Your task to perform on an android device: turn off location history Image 0: 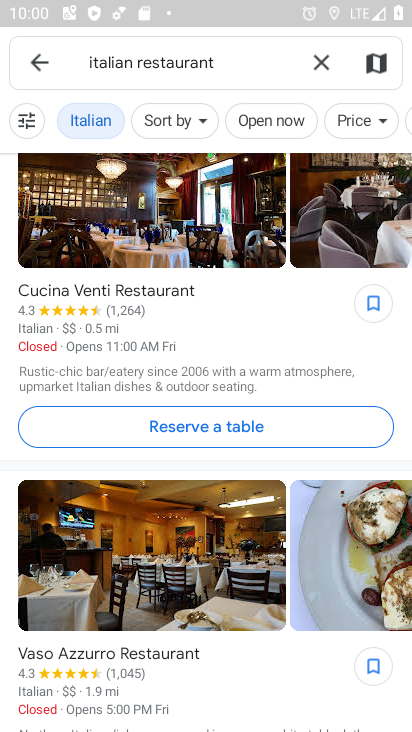
Step 0: press home button
Your task to perform on an android device: turn off location history Image 1: 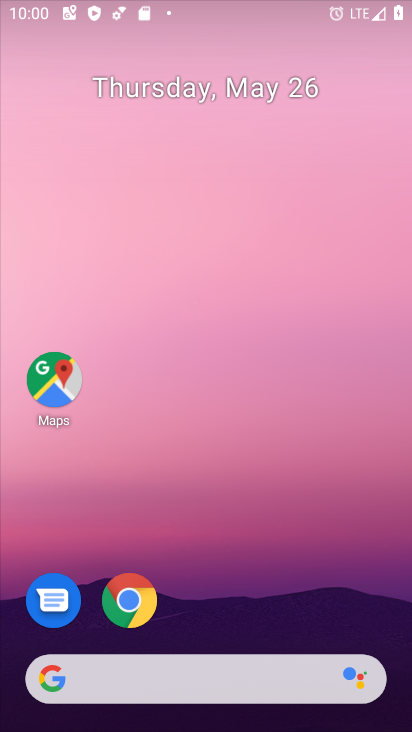
Step 1: drag from (292, 580) to (246, 132)
Your task to perform on an android device: turn off location history Image 2: 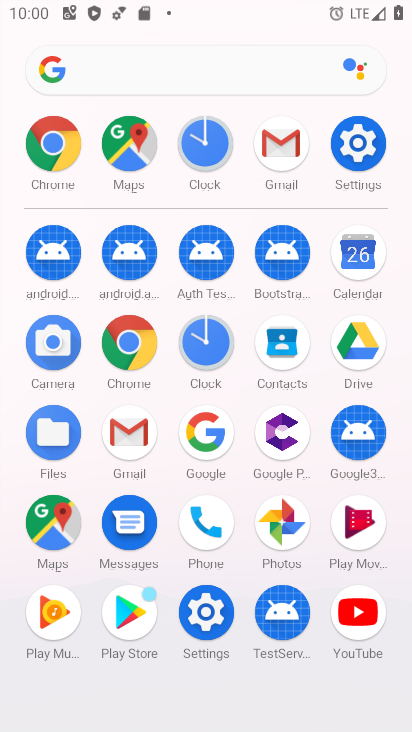
Step 2: click (361, 139)
Your task to perform on an android device: turn off location history Image 3: 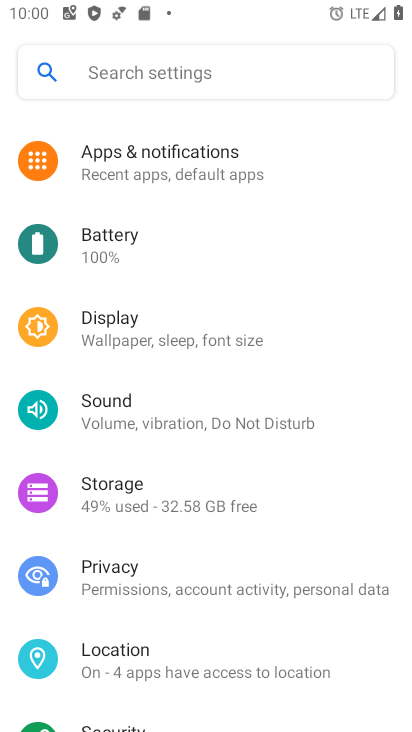
Step 3: click (109, 672)
Your task to perform on an android device: turn off location history Image 4: 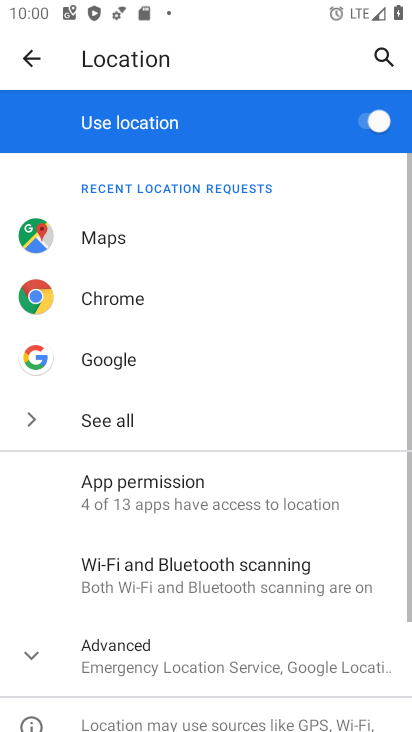
Step 4: click (136, 670)
Your task to perform on an android device: turn off location history Image 5: 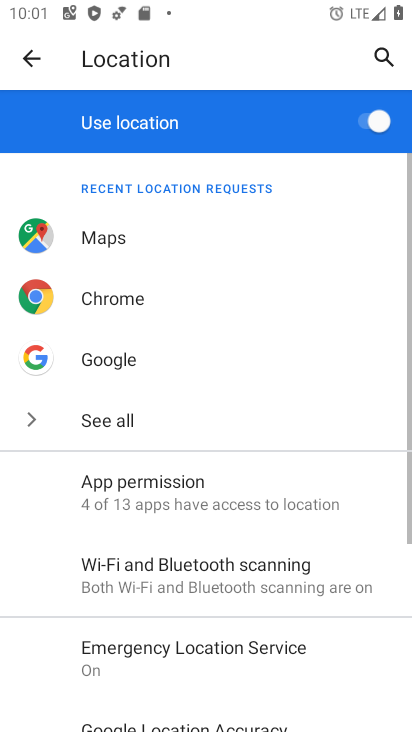
Step 5: drag from (143, 646) to (253, 182)
Your task to perform on an android device: turn off location history Image 6: 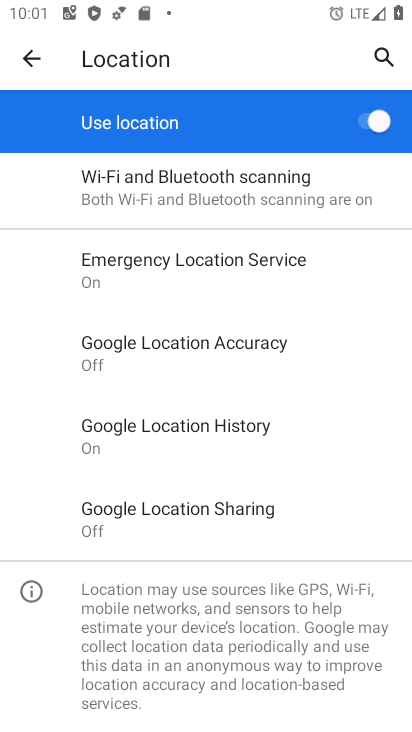
Step 6: click (201, 433)
Your task to perform on an android device: turn off location history Image 7: 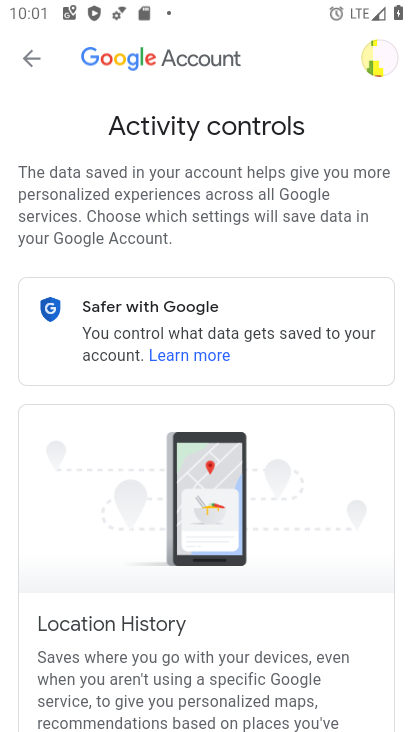
Step 7: drag from (184, 670) to (276, 194)
Your task to perform on an android device: turn off location history Image 8: 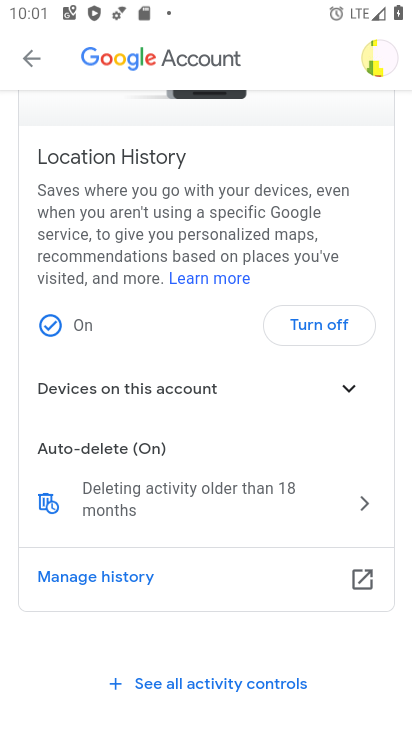
Step 8: click (348, 336)
Your task to perform on an android device: turn off location history Image 9: 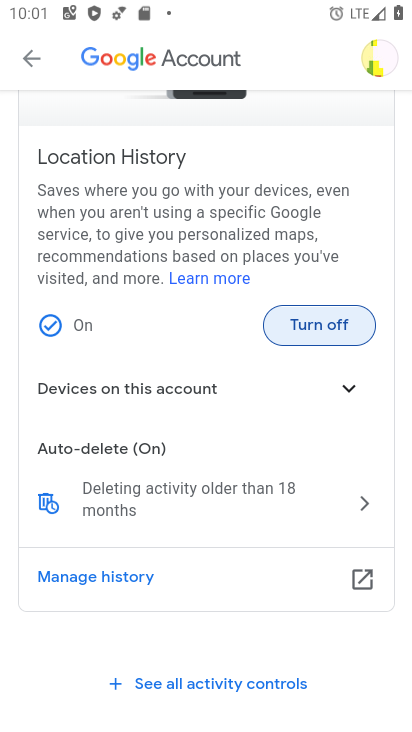
Step 9: click (340, 328)
Your task to perform on an android device: turn off location history Image 10: 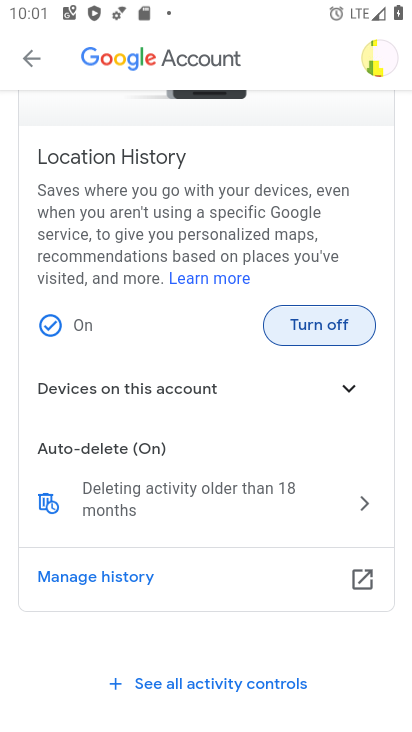
Step 10: click (340, 328)
Your task to perform on an android device: turn off location history Image 11: 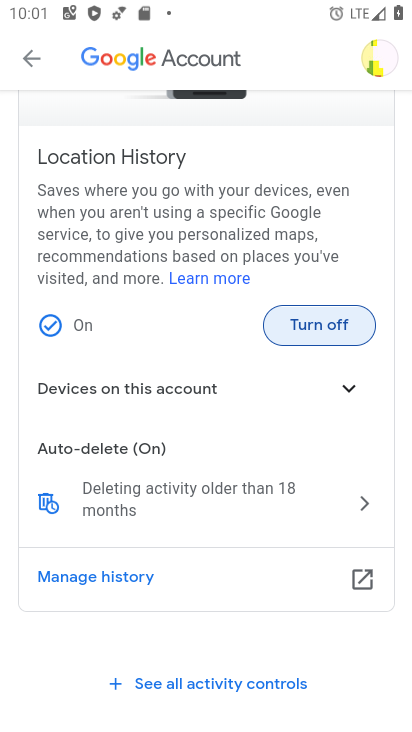
Step 11: click (311, 338)
Your task to perform on an android device: turn off location history Image 12: 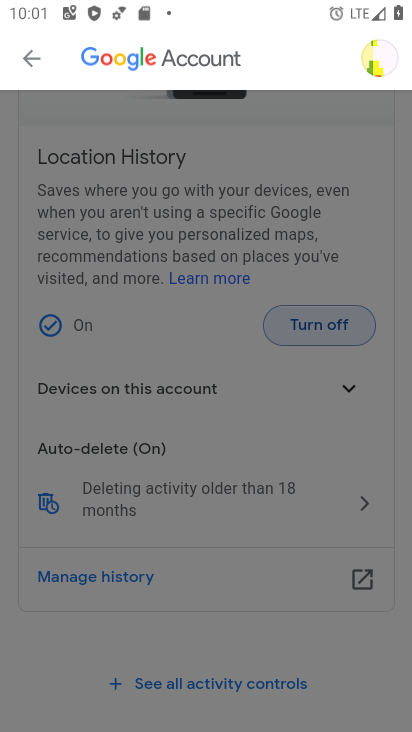
Step 12: click (316, 329)
Your task to perform on an android device: turn off location history Image 13: 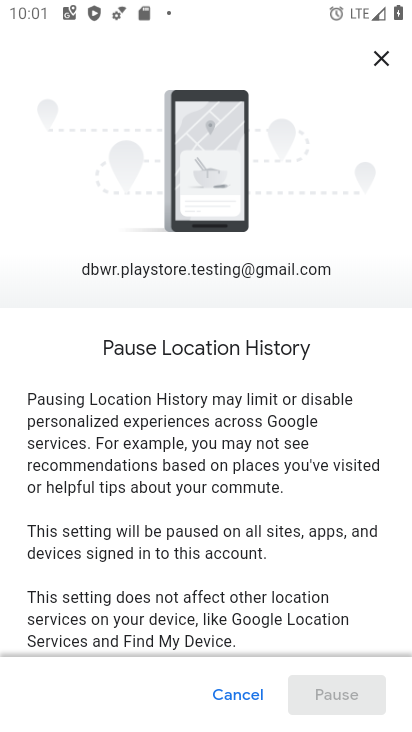
Step 13: drag from (261, 568) to (306, 127)
Your task to perform on an android device: turn off location history Image 14: 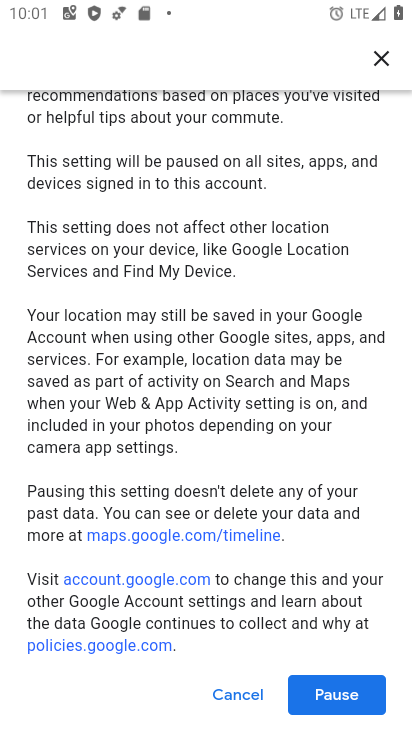
Step 14: drag from (291, 596) to (316, 218)
Your task to perform on an android device: turn off location history Image 15: 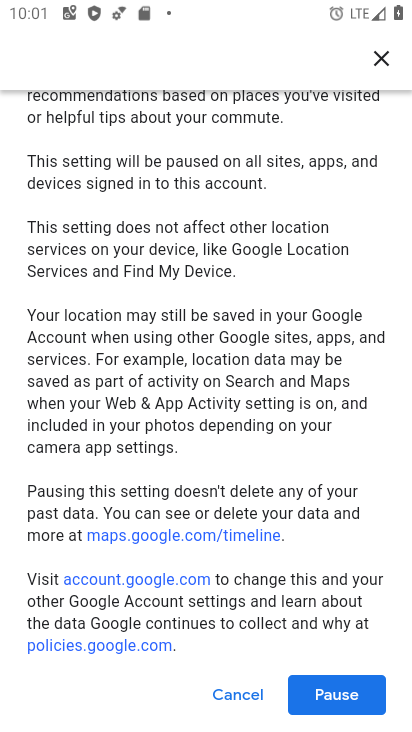
Step 15: click (355, 711)
Your task to perform on an android device: turn off location history Image 16: 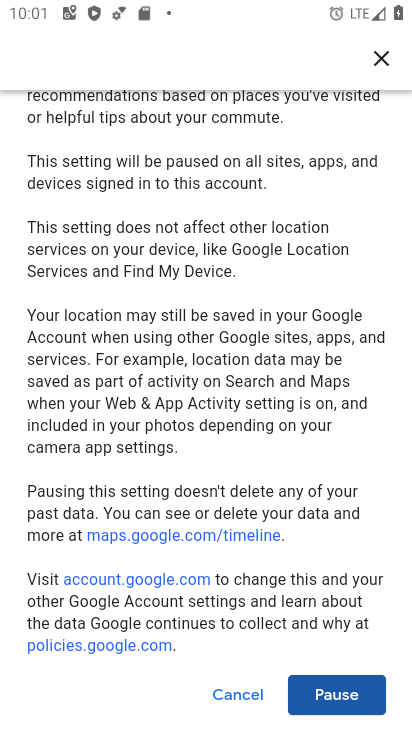
Step 16: click (356, 688)
Your task to perform on an android device: turn off location history Image 17: 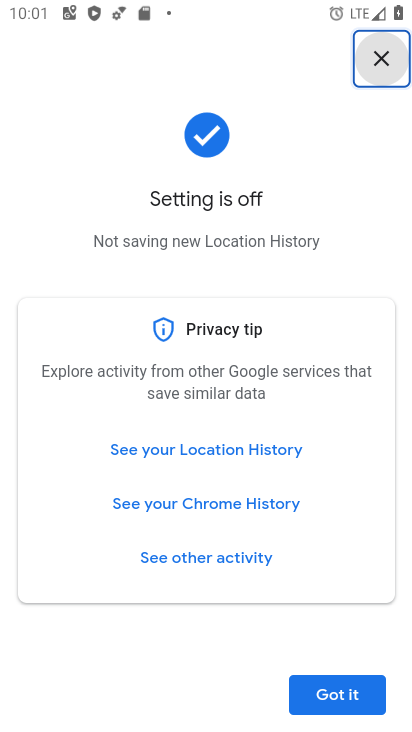
Step 17: task complete